Your task to perform on an android device: open app "Google Pay: Save, Pay, Manage" (install if not already installed) Image 0: 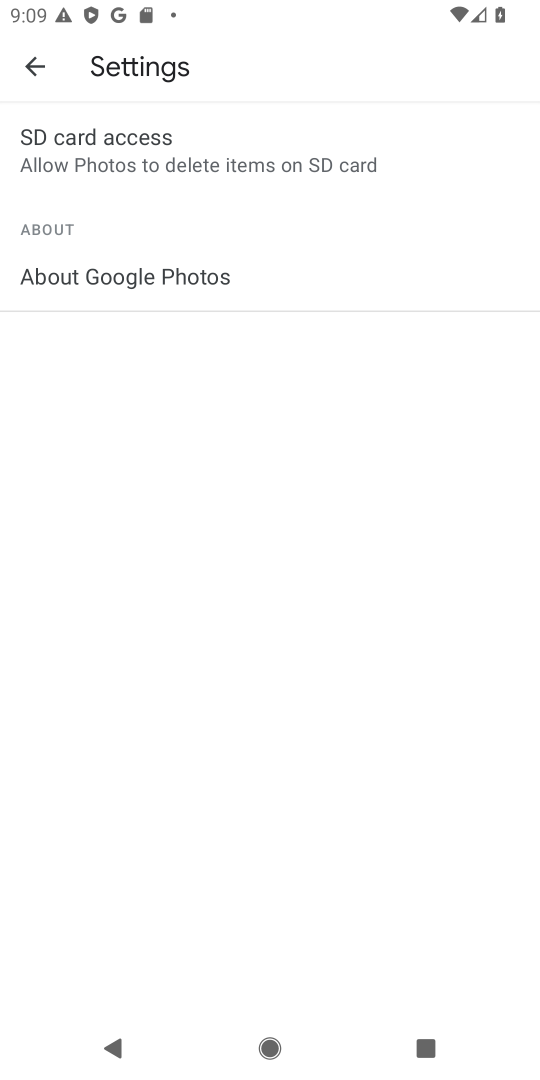
Step 0: press home button
Your task to perform on an android device: open app "Google Pay: Save, Pay, Manage" (install if not already installed) Image 1: 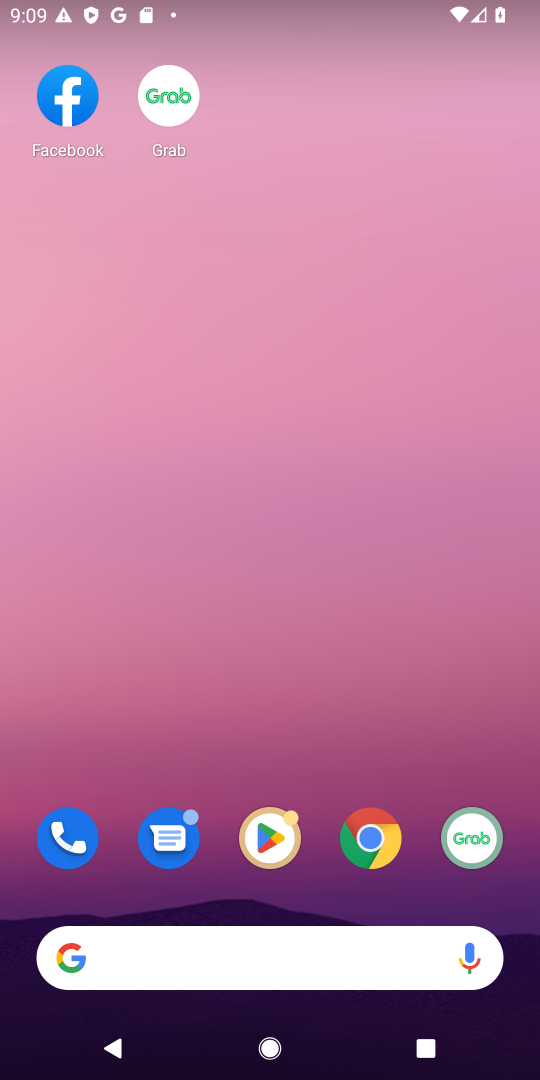
Step 1: click (283, 857)
Your task to perform on an android device: open app "Google Pay: Save, Pay, Manage" (install if not already installed) Image 2: 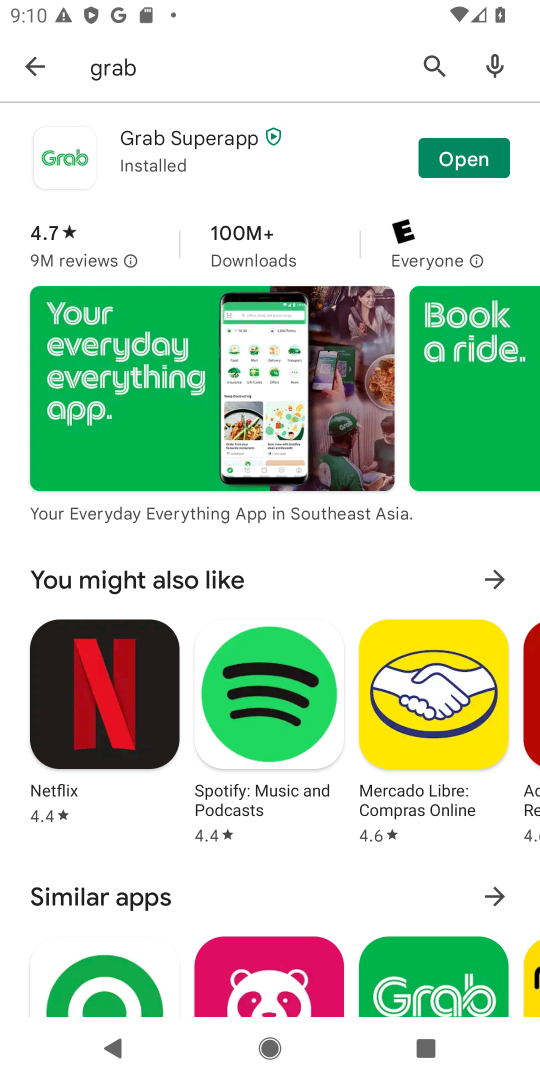
Step 2: click (428, 64)
Your task to perform on an android device: open app "Google Pay: Save, Pay, Manage" (install if not already installed) Image 3: 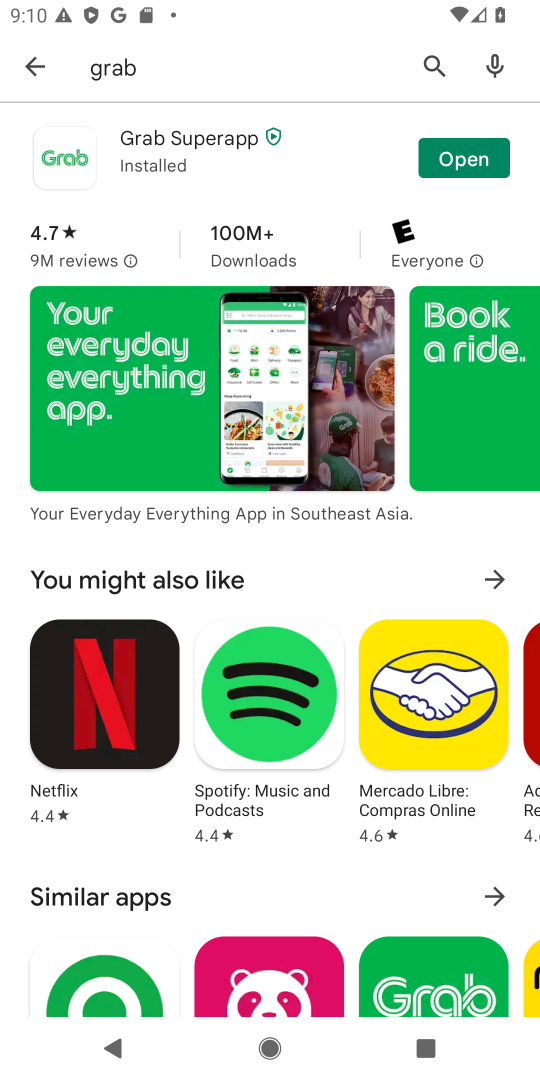
Step 3: click (399, 60)
Your task to perform on an android device: open app "Google Pay: Save, Pay, Manage" (install if not already installed) Image 4: 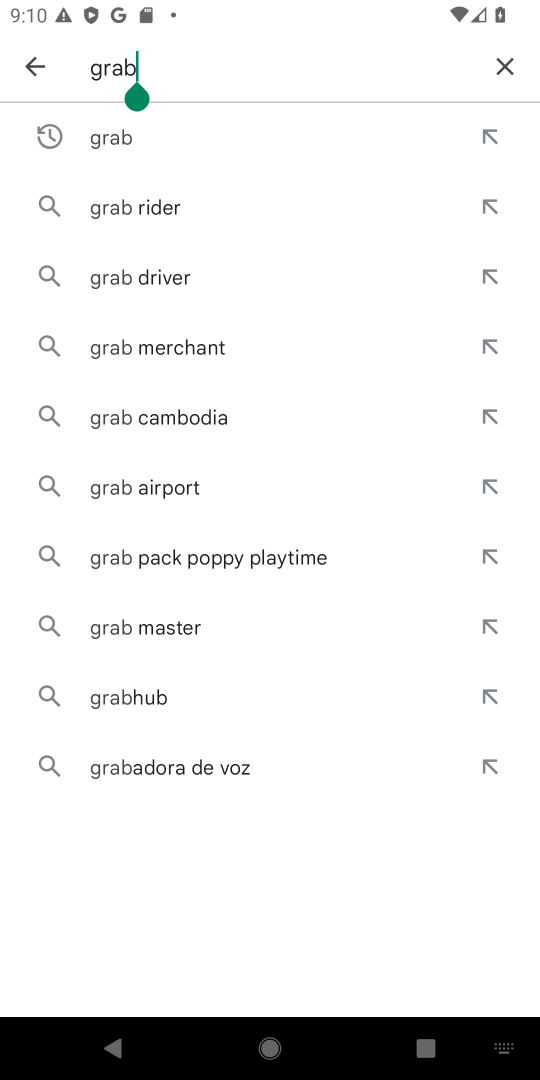
Step 4: click (506, 65)
Your task to perform on an android device: open app "Google Pay: Save, Pay, Manage" (install if not already installed) Image 5: 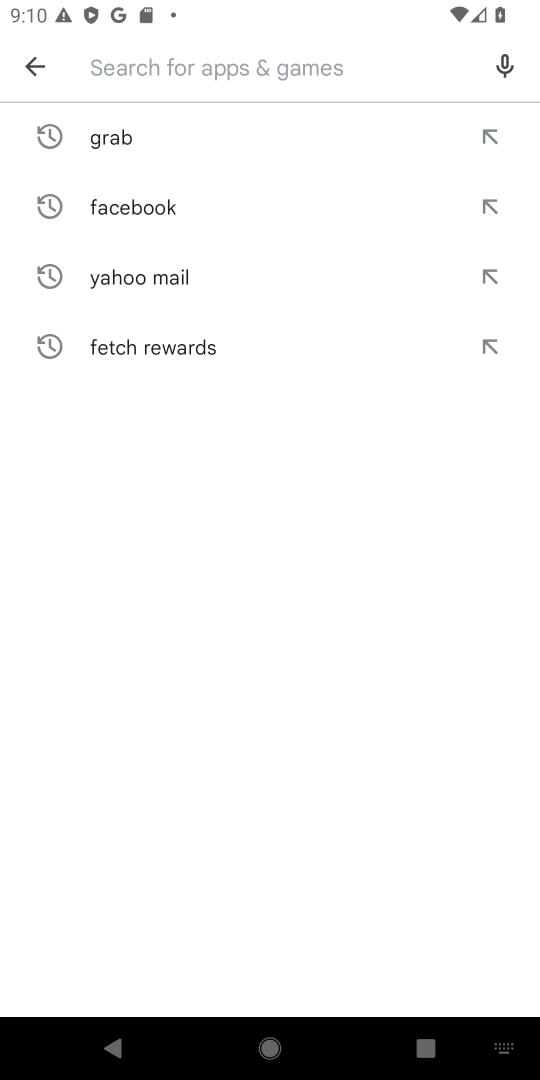
Step 5: type "Google Pay: Save, Pay, Manage"
Your task to perform on an android device: open app "Google Pay: Save, Pay, Manage" (install if not already installed) Image 6: 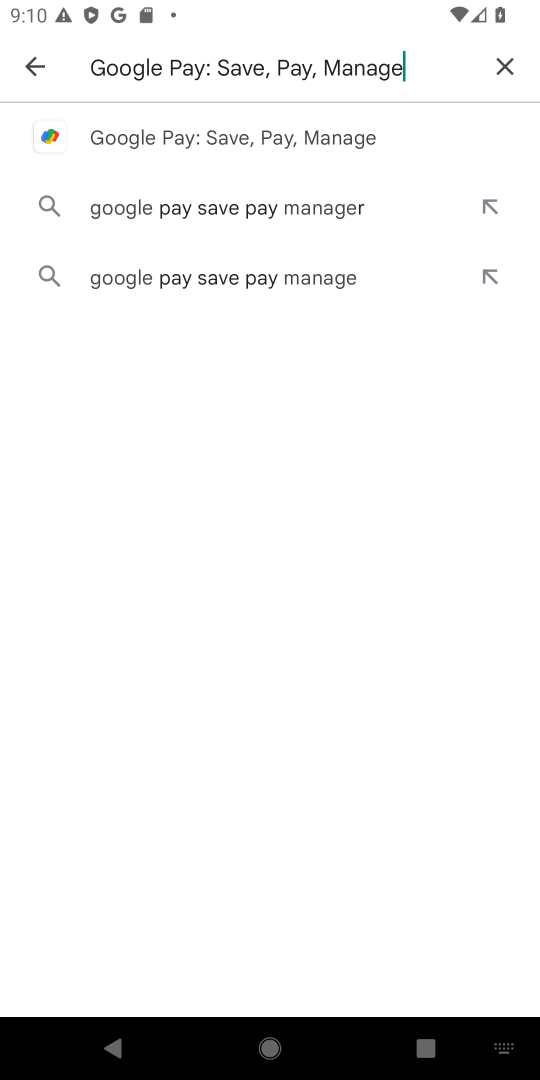
Step 6: click (122, 121)
Your task to perform on an android device: open app "Google Pay: Save, Pay, Manage" (install if not already installed) Image 7: 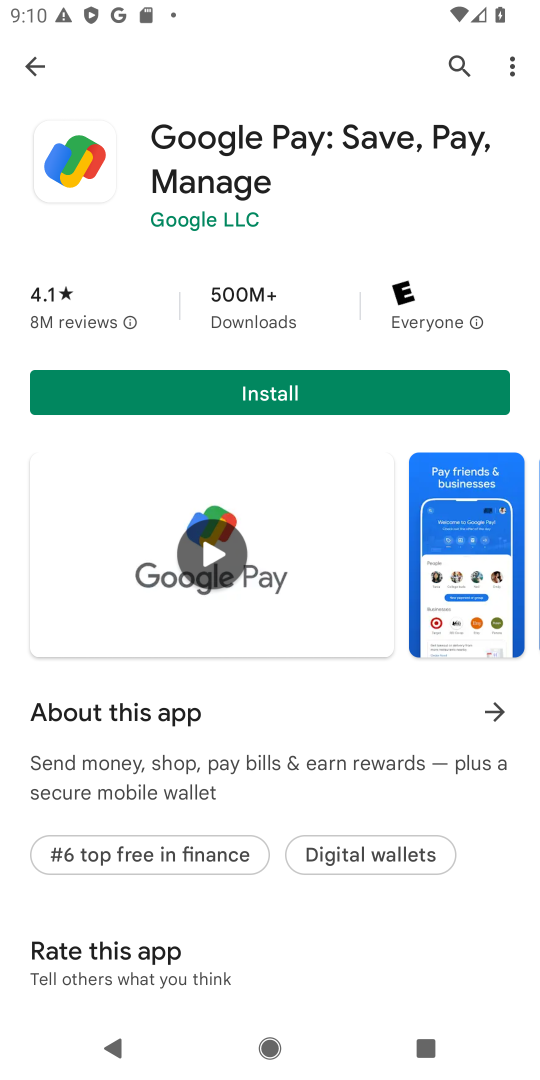
Step 7: click (254, 383)
Your task to perform on an android device: open app "Google Pay: Save, Pay, Manage" (install if not already installed) Image 8: 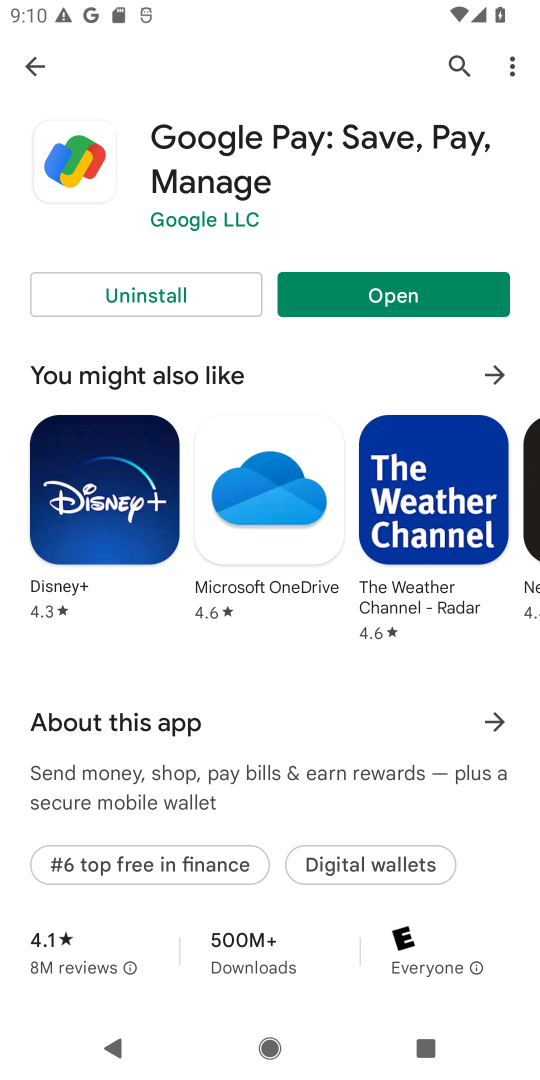
Step 8: click (345, 298)
Your task to perform on an android device: open app "Google Pay: Save, Pay, Manage" (install if not already installed) Image 9: 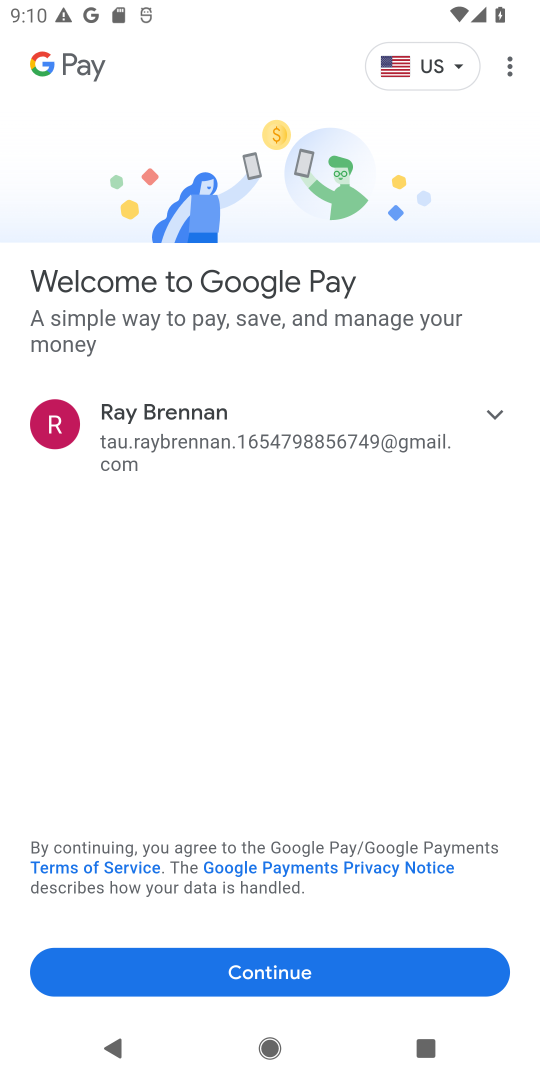
Step 9: task complete